Your task to perform on an android device: set an alarm Image 0: 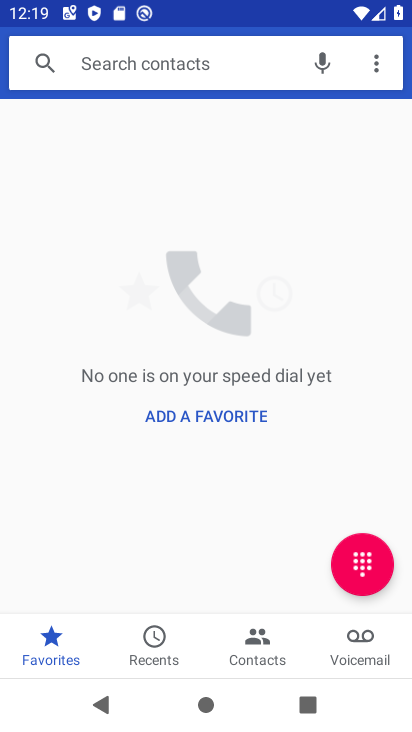
Step 0: press home button
Your task to perform on an android device: set an alarm Image 1: 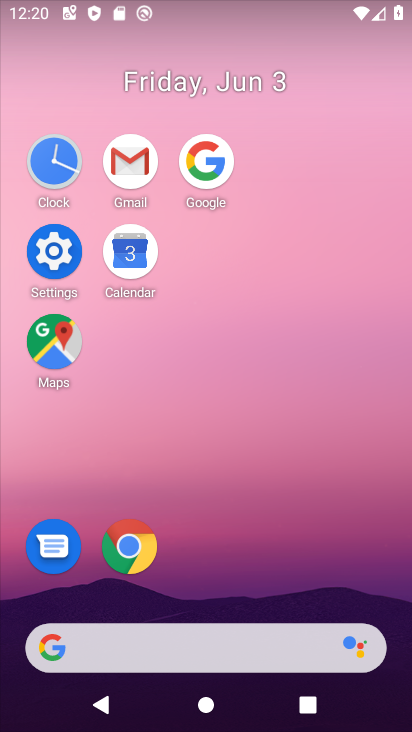
Step 1: click (53, 157)
Your task to perform on an android device: set an alarm Image 2: 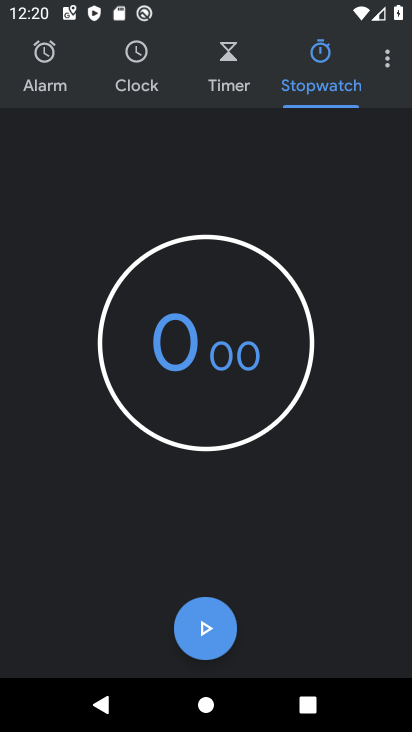
Step 2: click (52, 114)
Your task to perform on an android device: set an alarm Image 3: 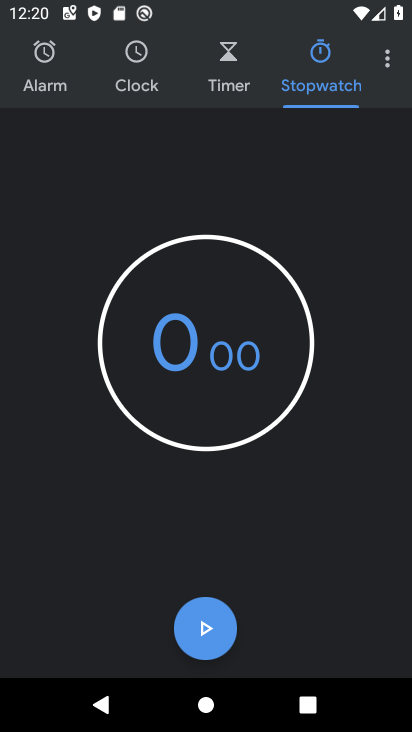
Step 3: click (47, 87)
Your task to perform on an android device: set an alarm Image 4: 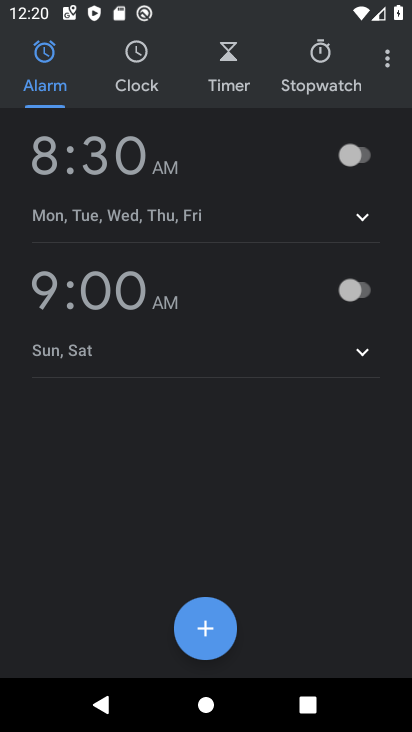
Step 4: click (353, 158)
Your task to perform on an android device: set an alarm Image 5: 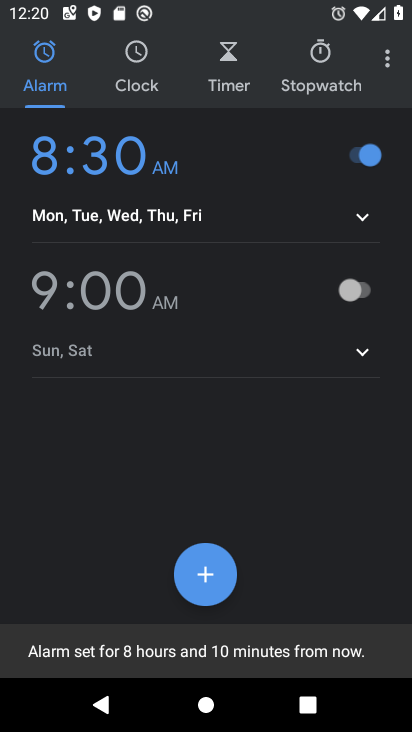
Step 5: task complete